Your task to perform on an android device: Go to Amazon Image 0: 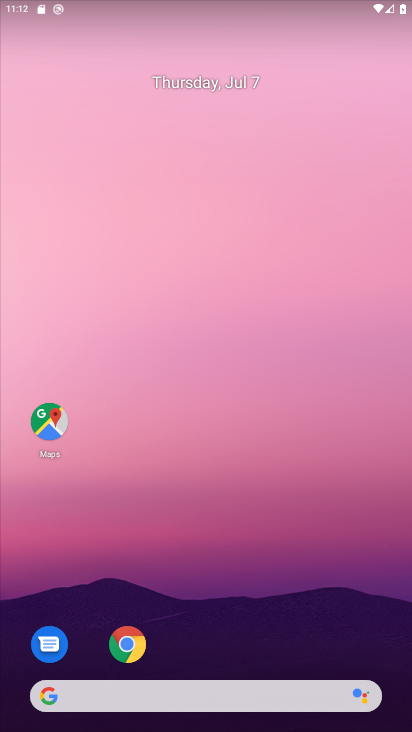
Step 0: click (122, 642)
Your task to perform on an android device: Go to Amazon Image 1: 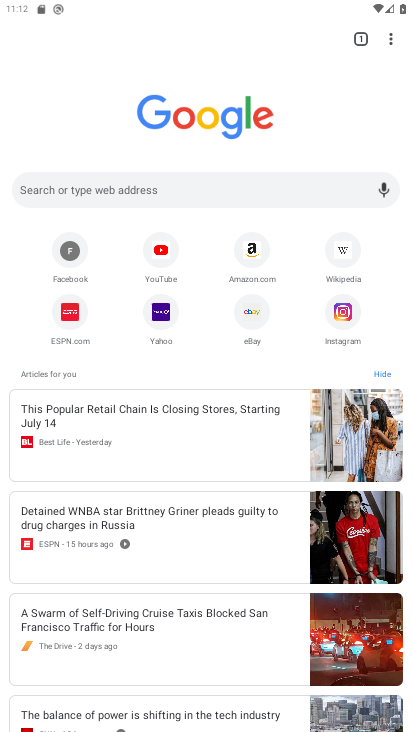
Step 1: click (249, 247)
Your task to perform on an android device: Go to Amazon Image 2: 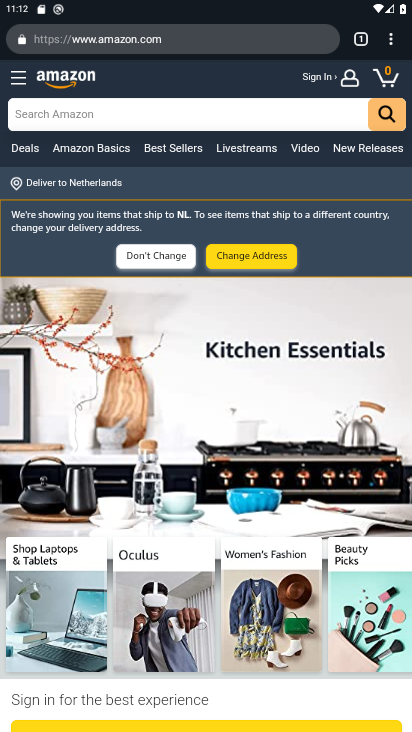
Step 2: task complete